Your task to perform on an android device: check google app version Image 0: 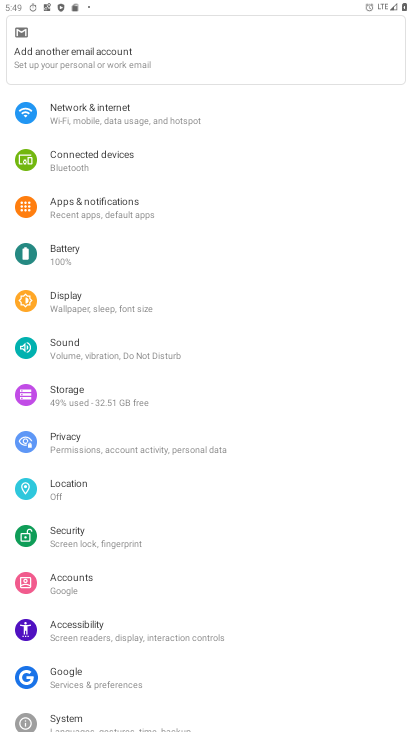
Step 0: press home button
Your task to perform on an android device: check google app version Image 1: 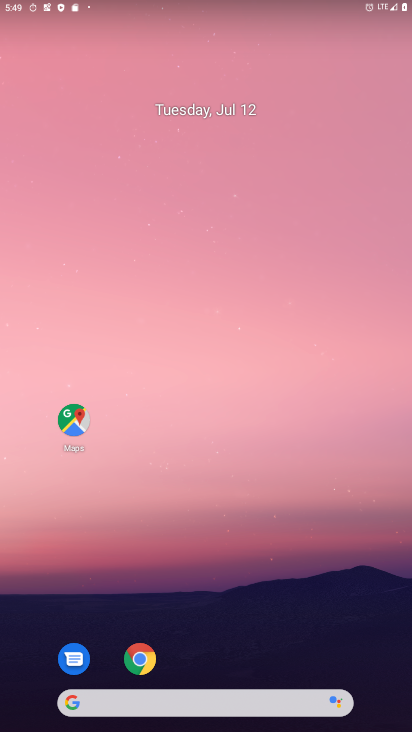
Step 1: click (138, 697)
Your task to perform on an android device: check google app version Image 2: 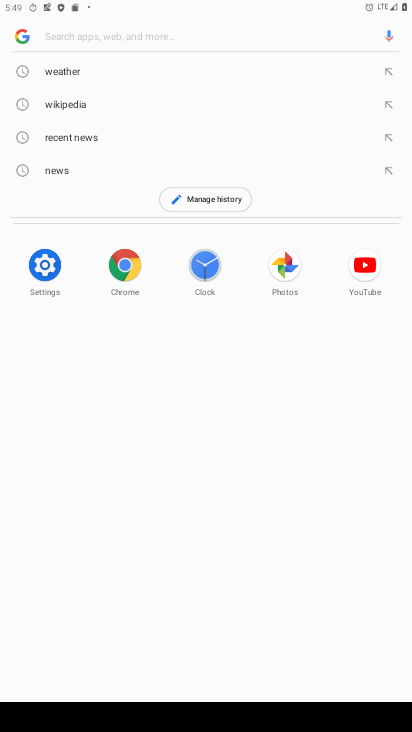
Step 2: click (22, 29)
Your task to perform on an android device: check google app version Image 3: 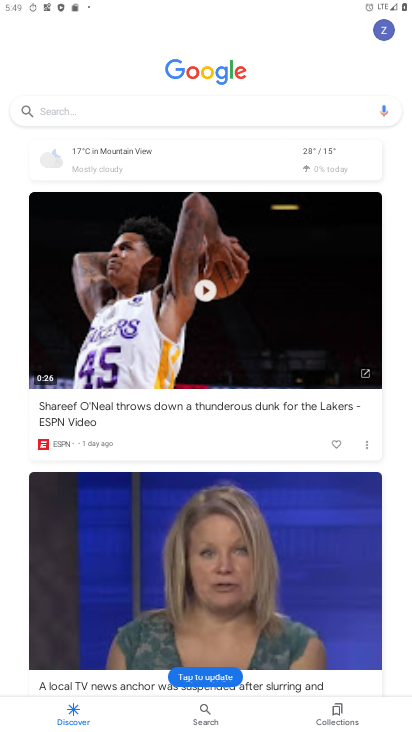
Step 3: click (375, 25)
Your task to perform on an android device: check google app version Image 4: 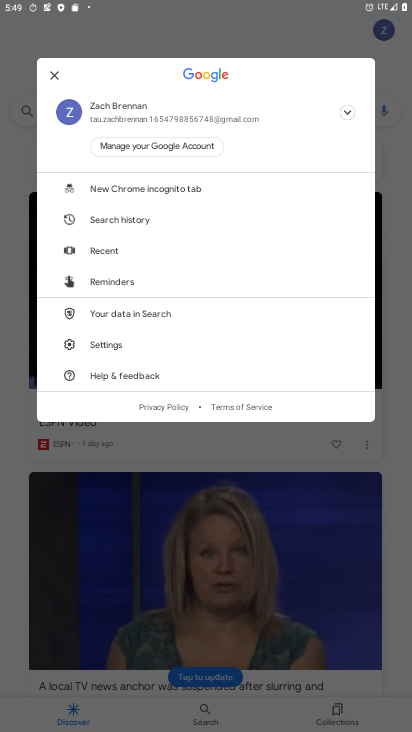
Step 4: click (78, 349)
Your task to perform on an android device: check google app version Image 5: 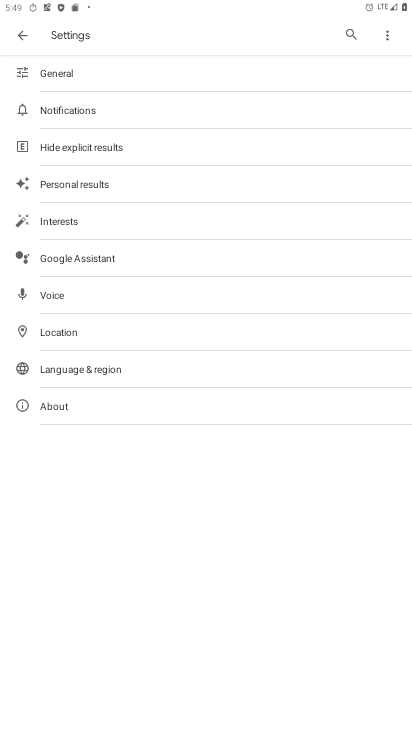
Step 5: click (46, 406)
Your task to perform on an android device: check google app version Image 6: 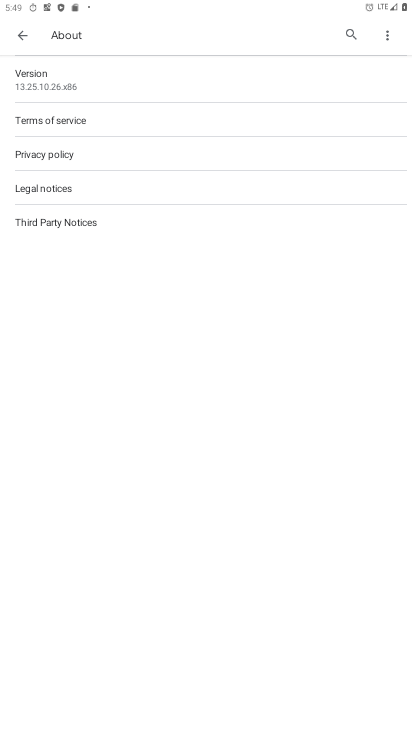
Step 6: task complete